Your task to perform on an android device: Is it going to rain this weekend? Image 0: 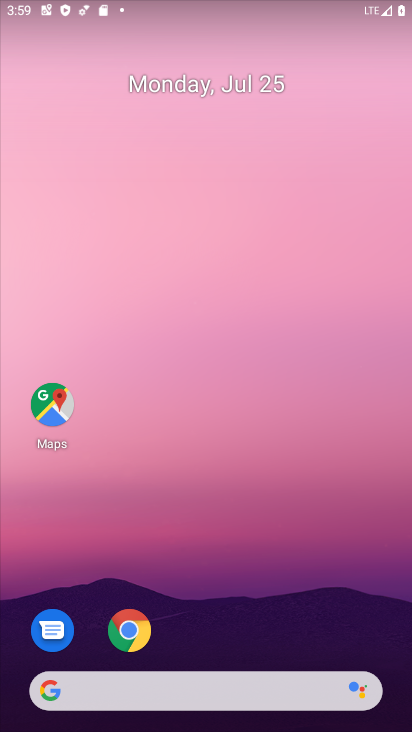
Step 0: drag from (253, 631) to (217, 189)
Your task to perform on an android device: Is it going to rain this weekend? Image 1: 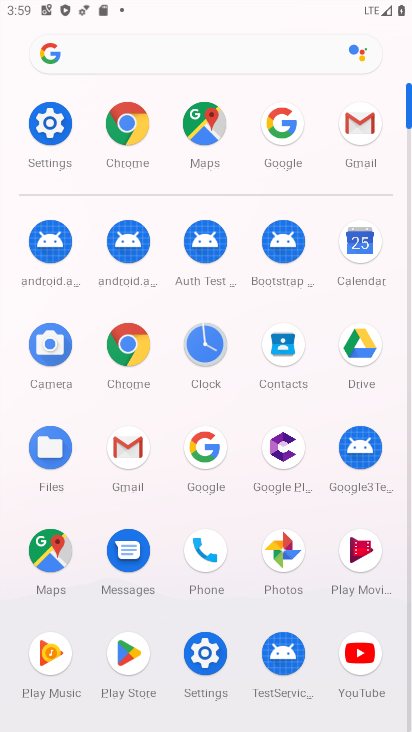
Step 1: click (124, 141)
Your task to perform on an android device: Is it going to rain this weekend? Image 2: 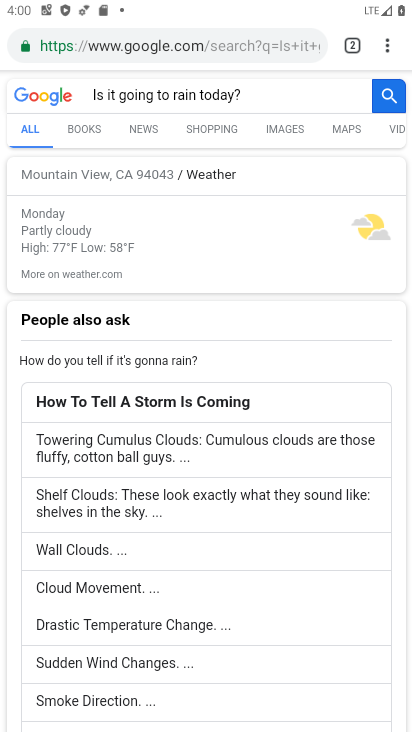
Step 2: click (243, 44)
Your task to perform on an android device: Is it going to rain this weekend? Image 3: 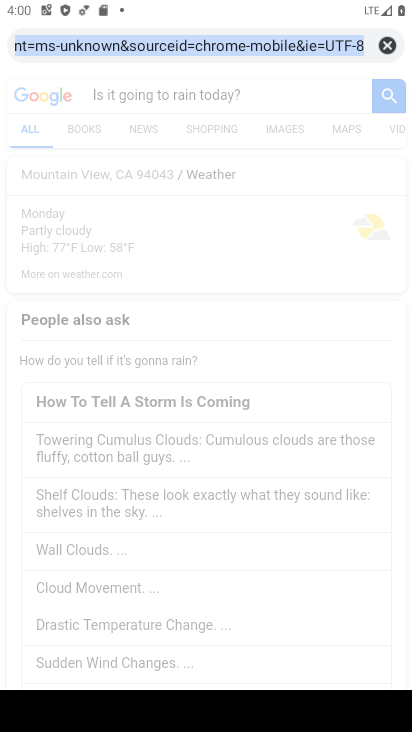
Step 3: type "Is it going to rain this weekend?"
Your task to perform on an android device: Is it going to rain this weekend? Image 4: 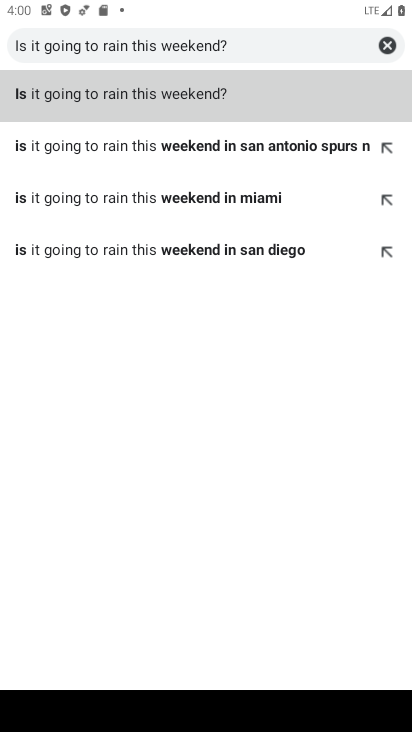
Step 4: click (249, 99)
Your task to perform on an android device: Is it going to rain this weekend? Image 5: 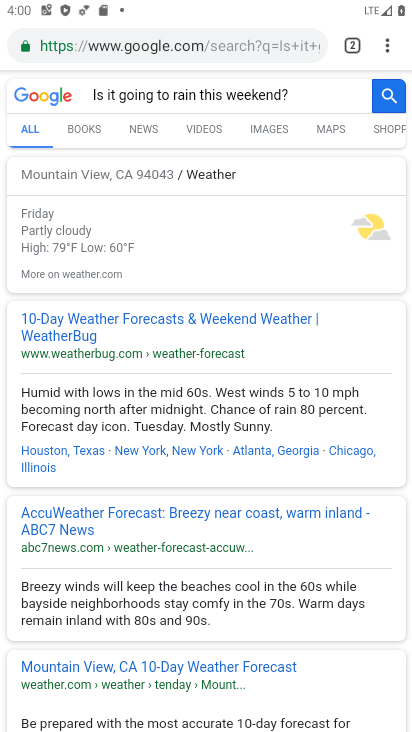
Step 5: task complete